Your task to perform on an android device: Open settings Image 0: 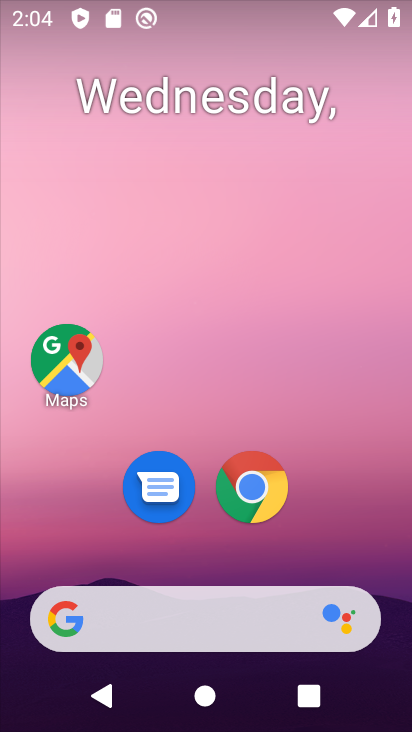
Step 0: drag from (212, 553) to (192, 282)
Your task to perform on an android device: Open settings Image 1: 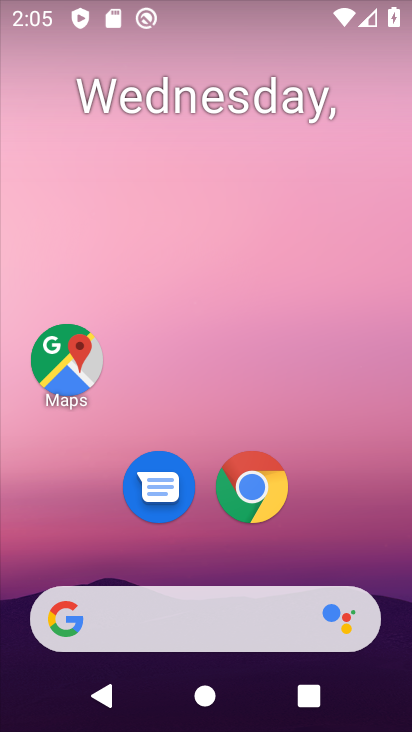
Step 1: drag from (197, 421) to (155, 226)
Your task to perform on an android device: Open settings Image 2: 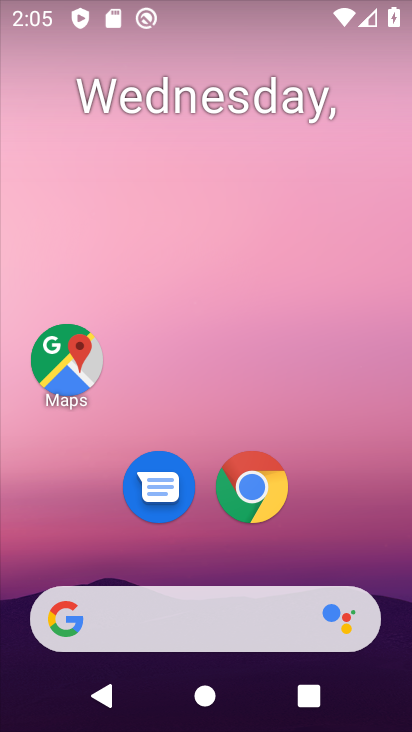
Step 2: drag from (255, 686) to (206, 208)
Your task to perform on an android device: Open settings Image 3: 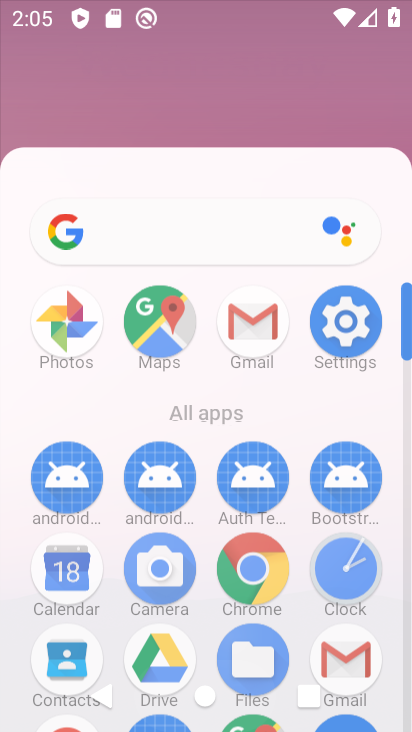
Step 3: drag from (245, 619) to (230, 268)
Your task to perform on an android device: Open settings Image 4: 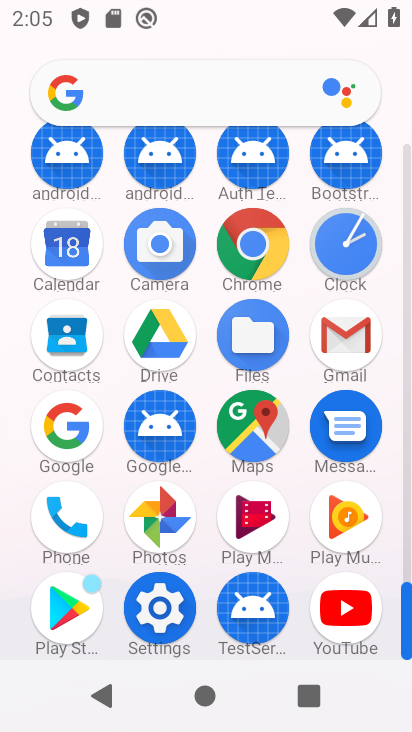
Step 4: click (158, 625)
Your task to perform on an android device: Open settings Image 5: 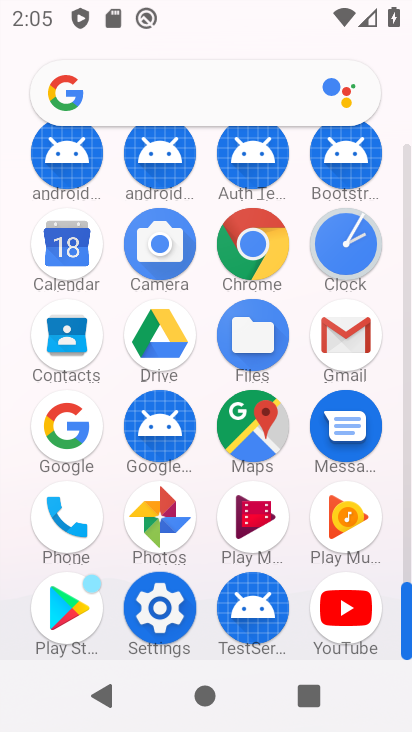
Step 5: click (159, 624)
Your task to perform on an android device: Open settings Image 6: 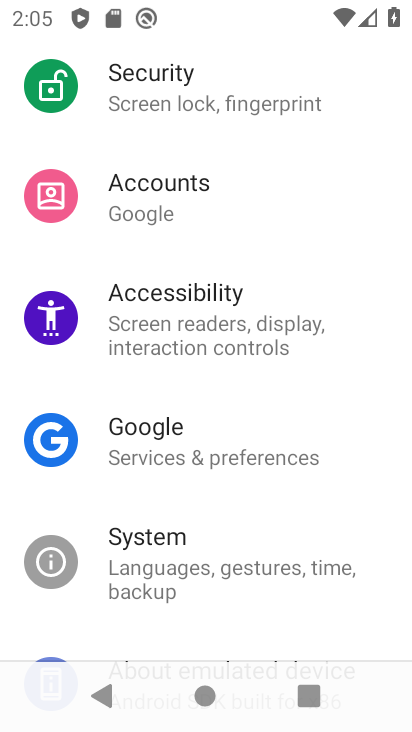
Step 6: task complete